Your task to perform on an android device: Go to sound settings Image 0: 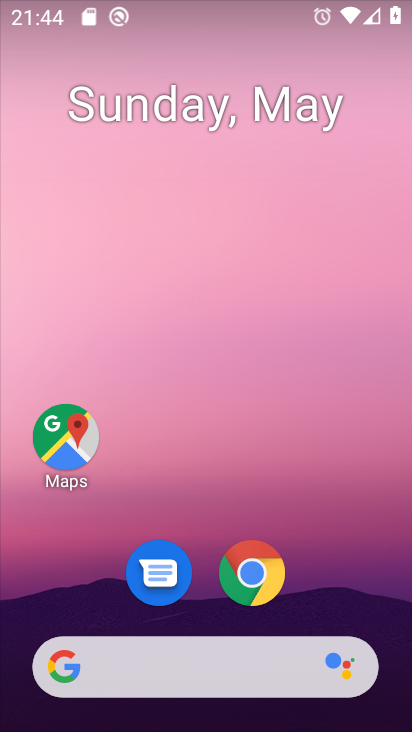
Step 0: drag from (233, 495) to (280, 0)
Your task to perform on an android device: Go to sound settings Image 1: 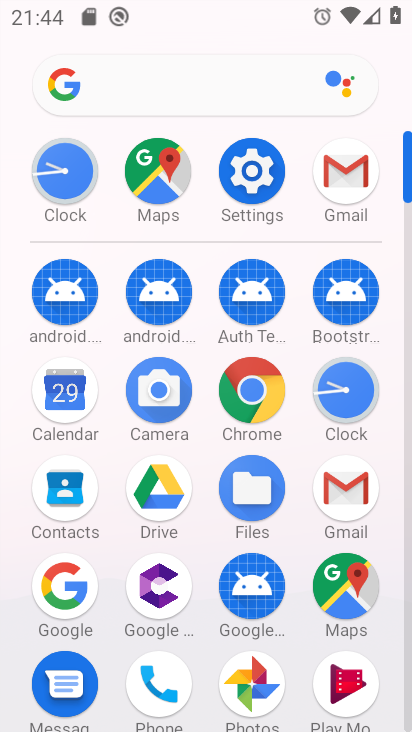
Step 1: click (245, 183)
Your task to perform on an android device: Go to sound settings Image 2: 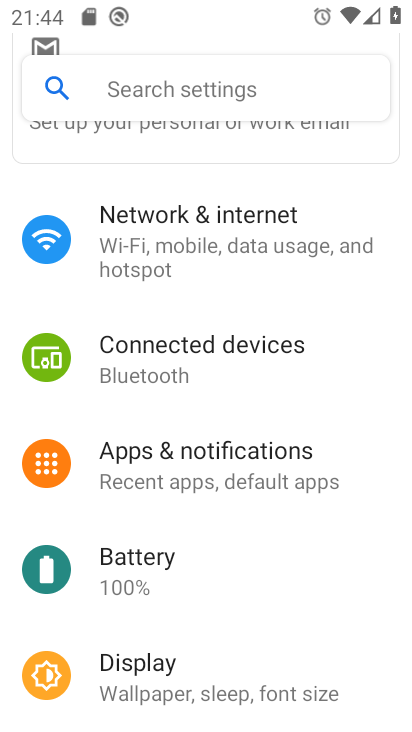
Step 2: drag from (229, 585) to (289, 116)
Your task to perform on an android device: Go to sound settings Image 3: 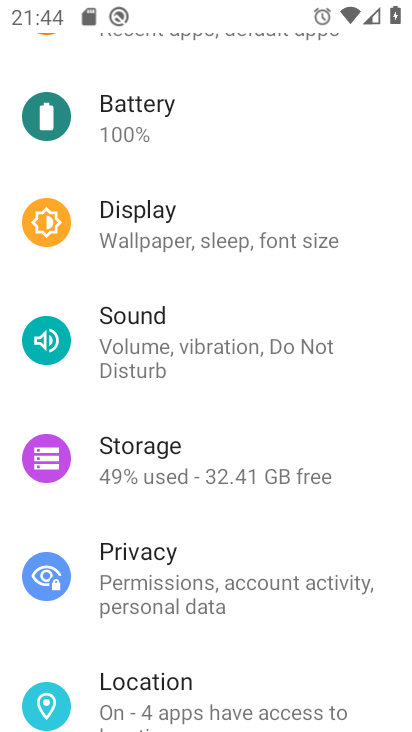
Step 3: click (213, 334)
Your task to perform on an android device: Go to sound settings Image 4: 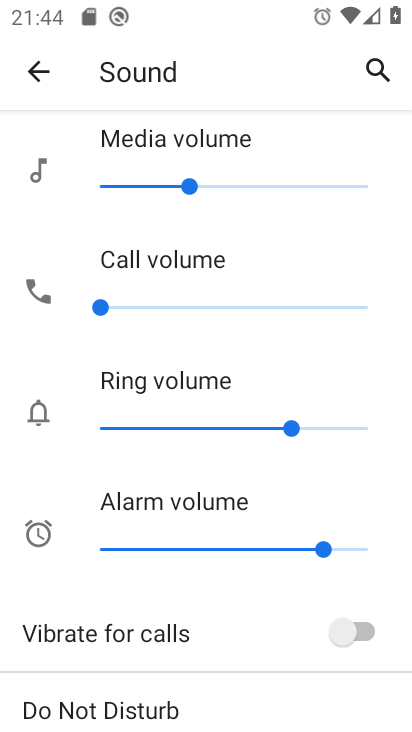
Step 4: task complete